Your task to perform on an android device: What's on my calendar tomorrow? Image 0: 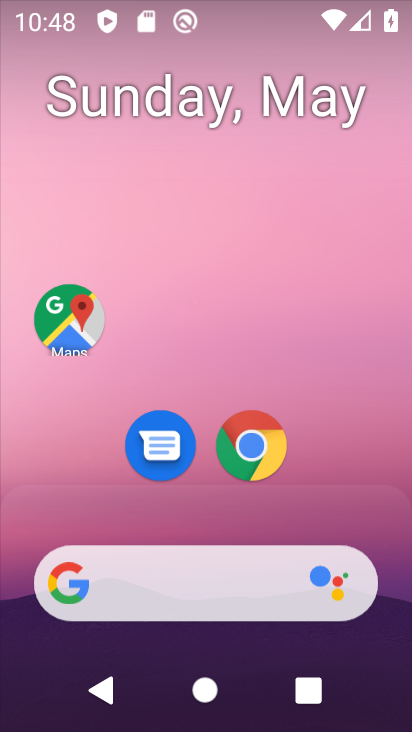
Step 0: drag from (185, 493) to (184, 97)
Your task to perform on an android device: What's on my calendar tomorrow? Image 1: 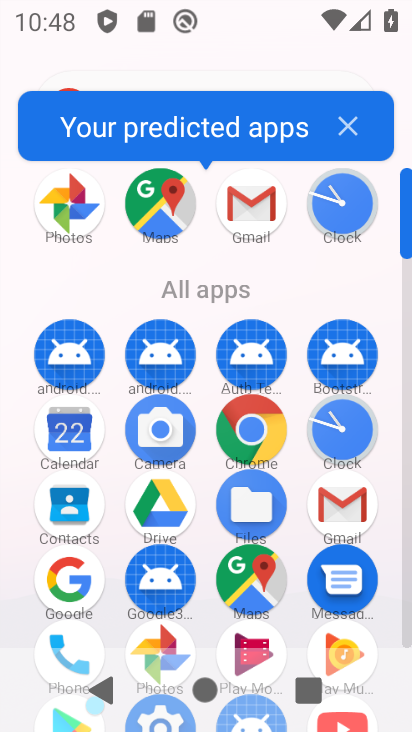
Step 1: click (63, 429)
Your task to perform on an android device: What's on my calendar tomorrow? Image 2: 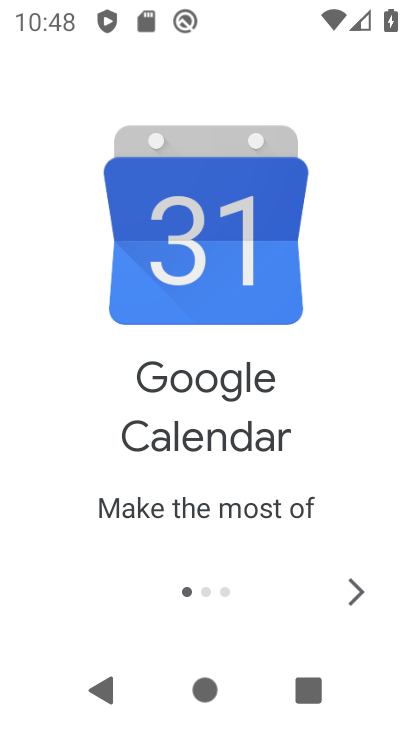
Step 2: click (357, 594)
Your task to perform on an android device: What's on my calendar tomorrow? Image 3: 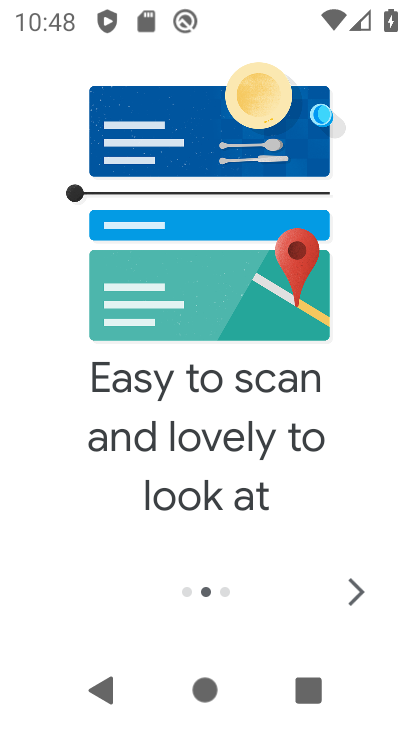
Step 3: click (357, 594)
Your task to perform on an android device: What's on my calendar tomorrow? Image 4: 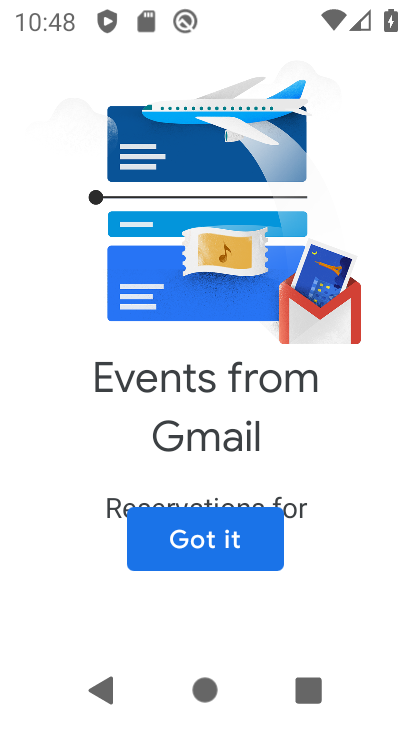
Step 4: click (175, 540)
Your task to perform on an android device: What's on my calendar tomorrow? Image 5: 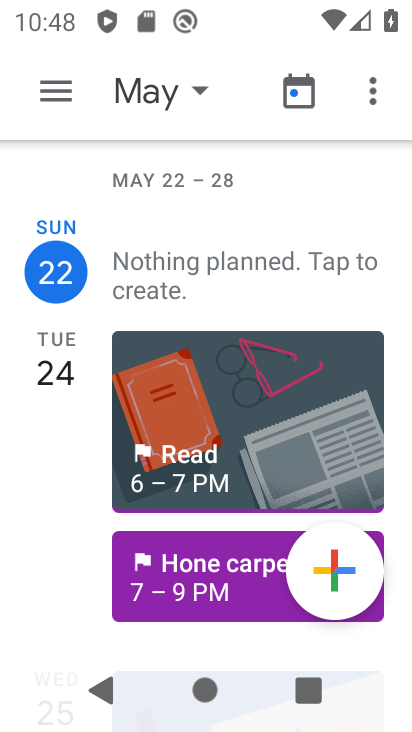
Step 5: click (130, 84)
Your task to perform on an android device: What's on my calendar tomorrow? Image 6: 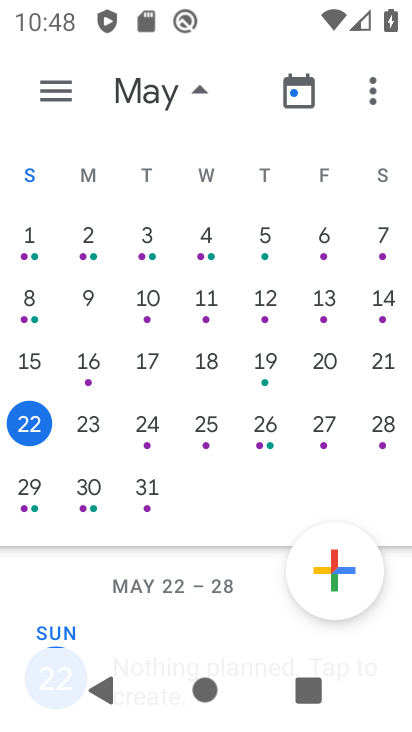
Step 6: click (148, 425)
Your task to perform on an android device: What's on my calendar tomorrow? Image 7: 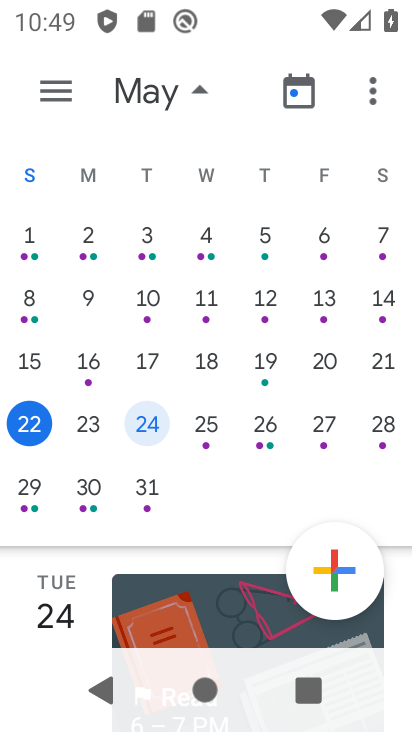
Step 7: task complete